Your task to perform on an android device: What's the weather? Image 0: 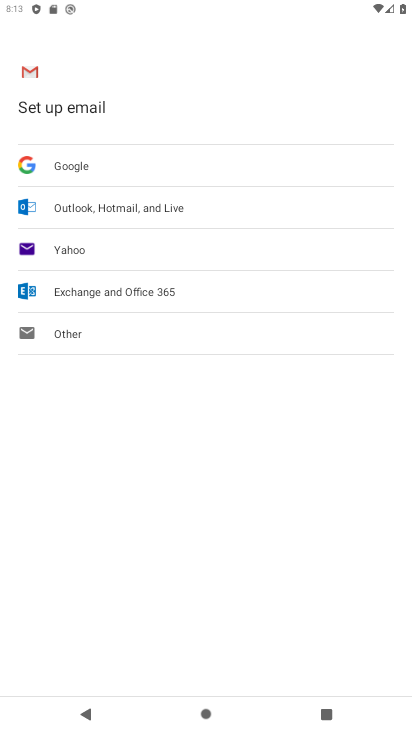
Step 0: press back button
Your task to perform on an android device: What's the weather? Image 1: 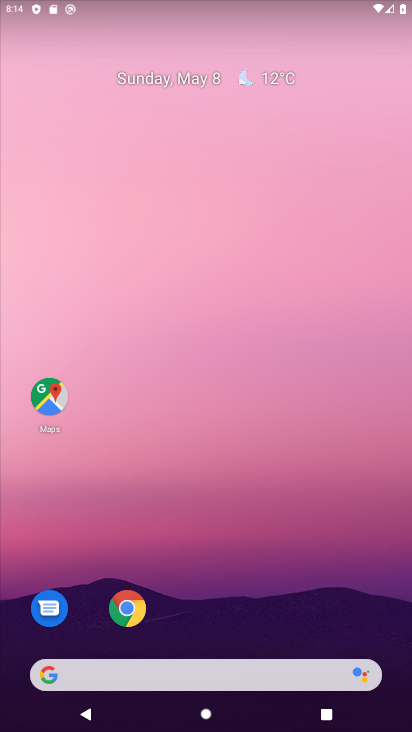
Step 1: click (124, 604)
Your task to perform on an android device: What's the weather? Image 2: 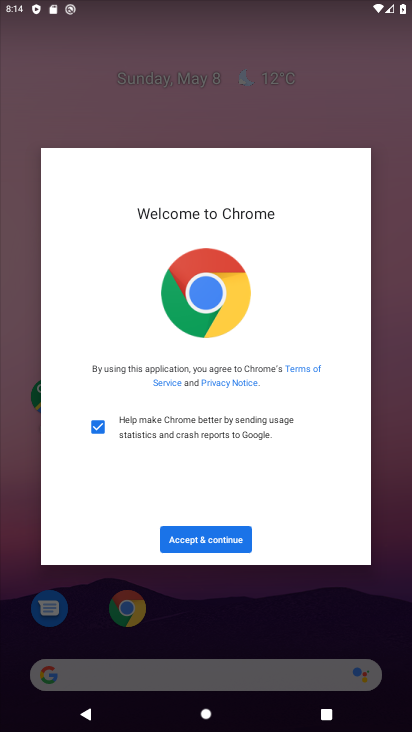
Step 2: click (221, 544)
Your task to perform on an android device: What's the weather? Image 3: 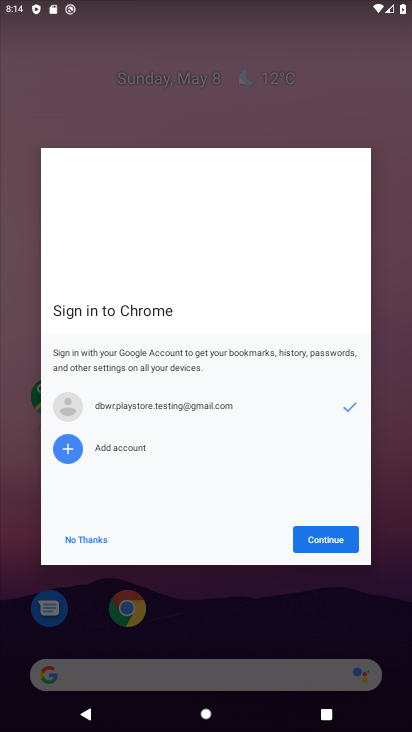
Step 3: click (342, 539)
Your task to perform on an android device: What's the weather? Image 4: 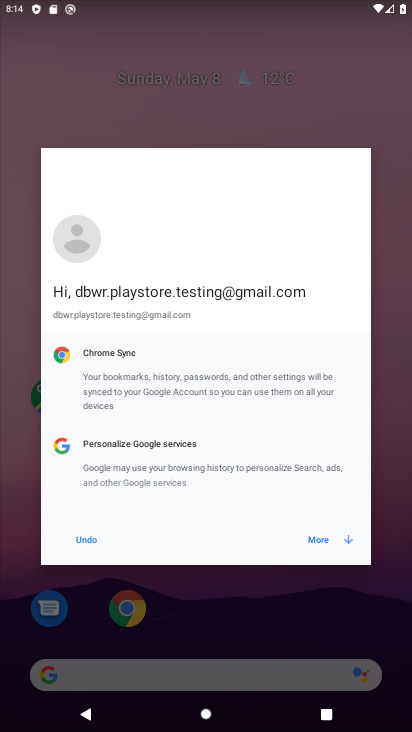
Step 4: click (320, 534)
Your task to perform on an android device: What's the weather? Image 5: 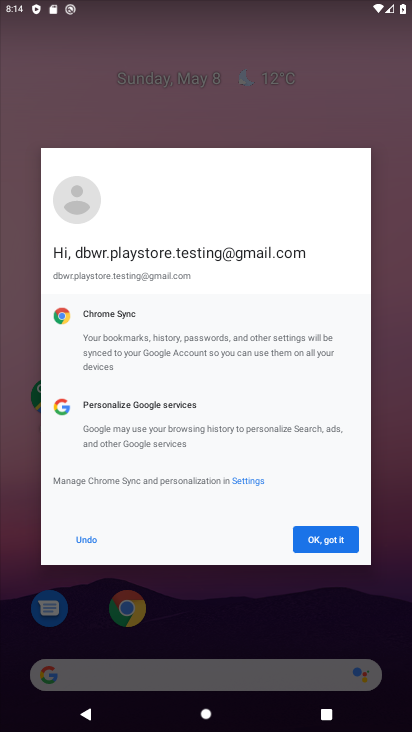
Step 5: click (320, 534)
Your task to perform on an android device: What's the weather? Image 6: 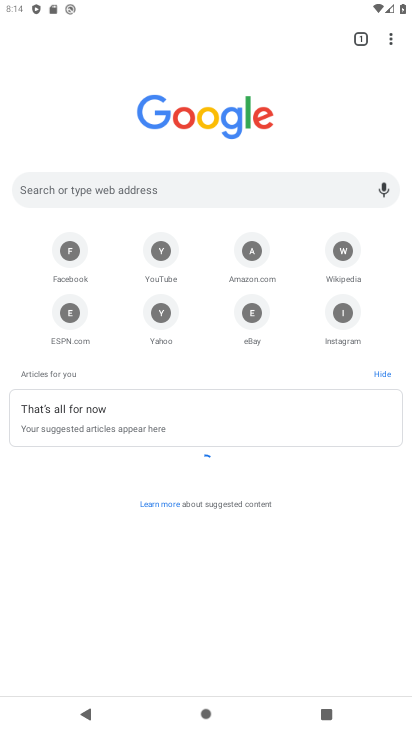
Step 6: click (157, 194)
Your task to perform on an android device: What's the weather? Image 7: 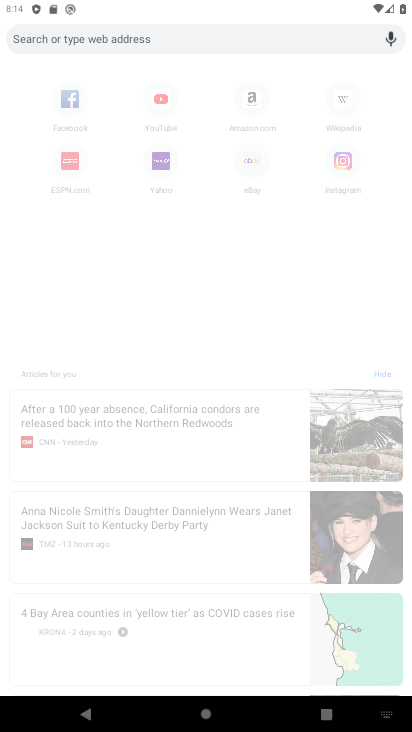
Step 7: type "What's the weather?"
Your task to perform on an android device: What's the weather? Image 8: 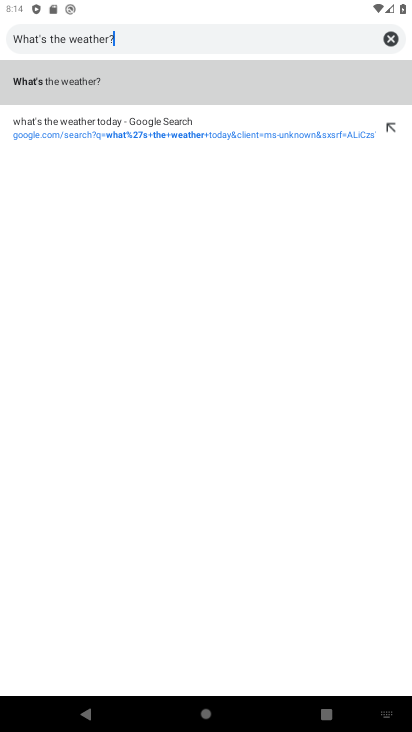
Step 8: type ""
Your task to perform on an android device: What's the weather? Image 9: 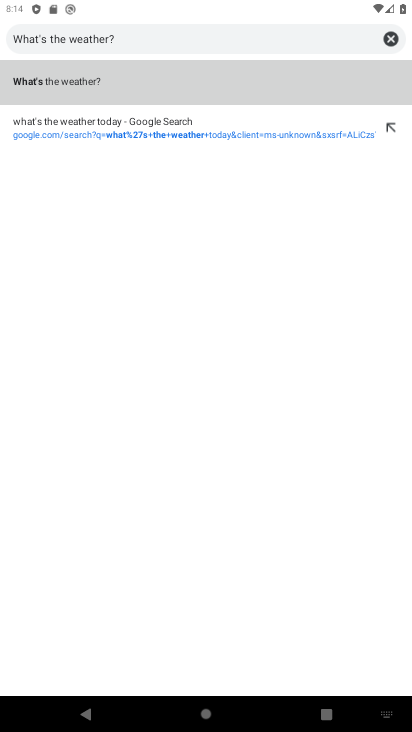
Step 9: click (117, 92)
Your task to perform on an android device: What's the weather? Image 10: 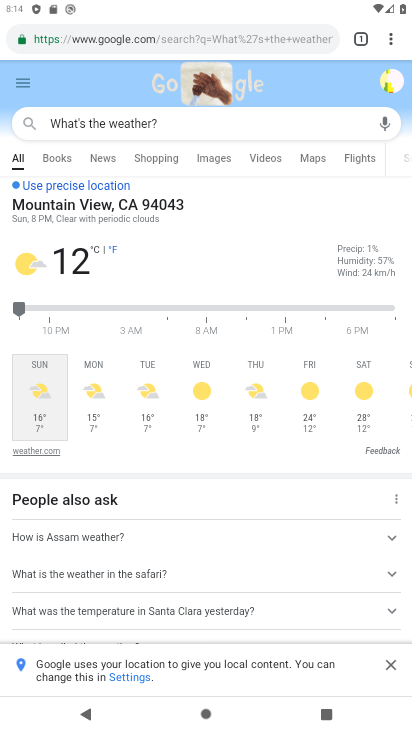
Step 10: task complete